Your task to perform on an android device: turn off airplane mode Image 0: 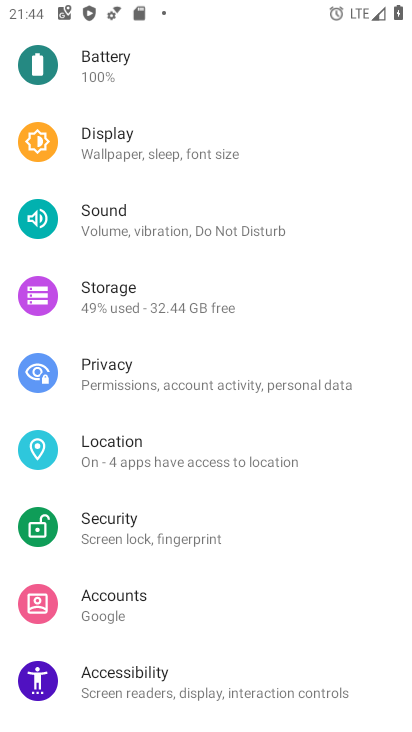
Step 0: drag from (353, 9) to (348, 343)
Your task to perform on an android device: turn off airplane mode Image 1: 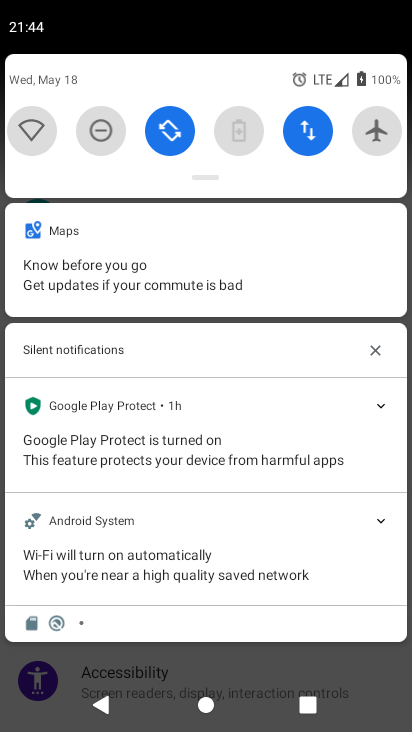
Step 1: task complete